Your task to perform on an android device: Open notification settings Image 0: 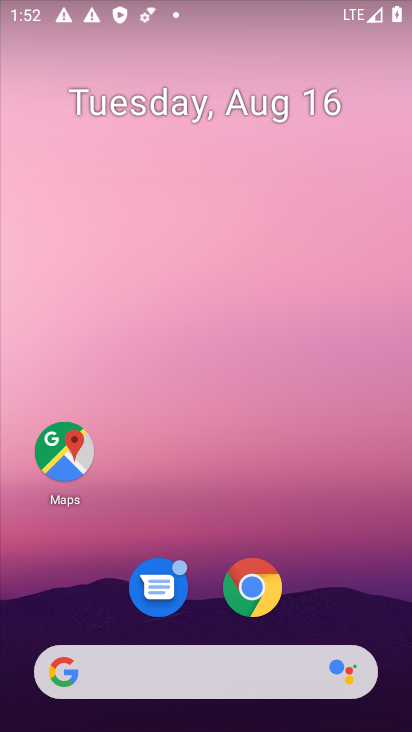
Step 0: drag from (207, 632) to (266, 84)
Your task to perform on an android device: Open notification settings Image 1: 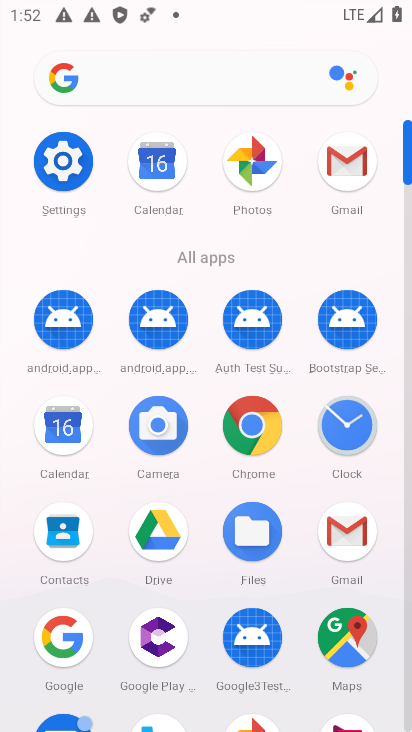
Step 1: click (47, 165)
Your task to perform on an android device: Open notification settings Image 2: 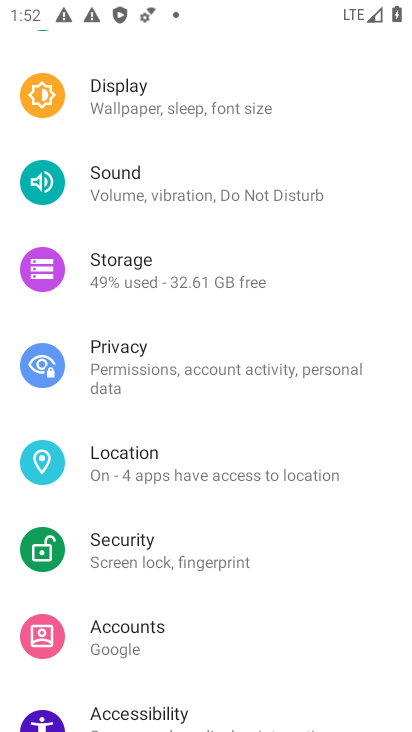
Step 2: drag from (206, 211) to (200, 662)
Your task to perform on an android device: Open notification settings Image 3: 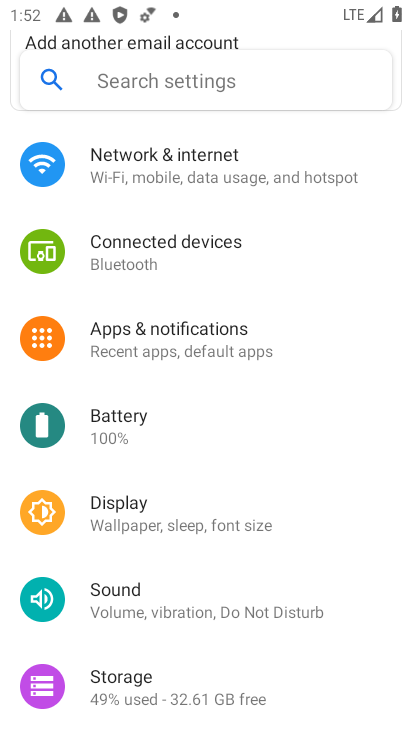
Step 3: click (144, 353)
Your task to perform on an android device: Open notification settings Image 4: 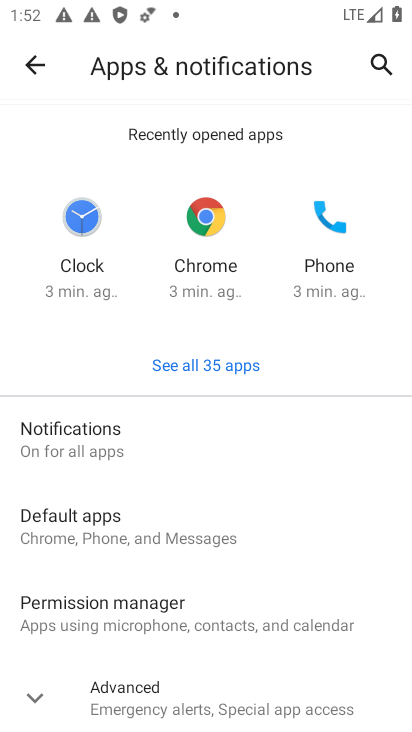
Step 4: click (102, 435)
Your task to perform on an android device: Open notification settings Image 5: 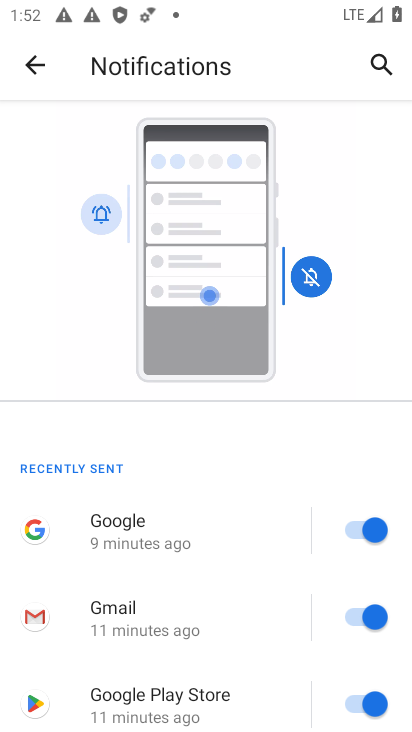
Step 5: task complete